Your task to perform on an android device: turn off location history Image 0: 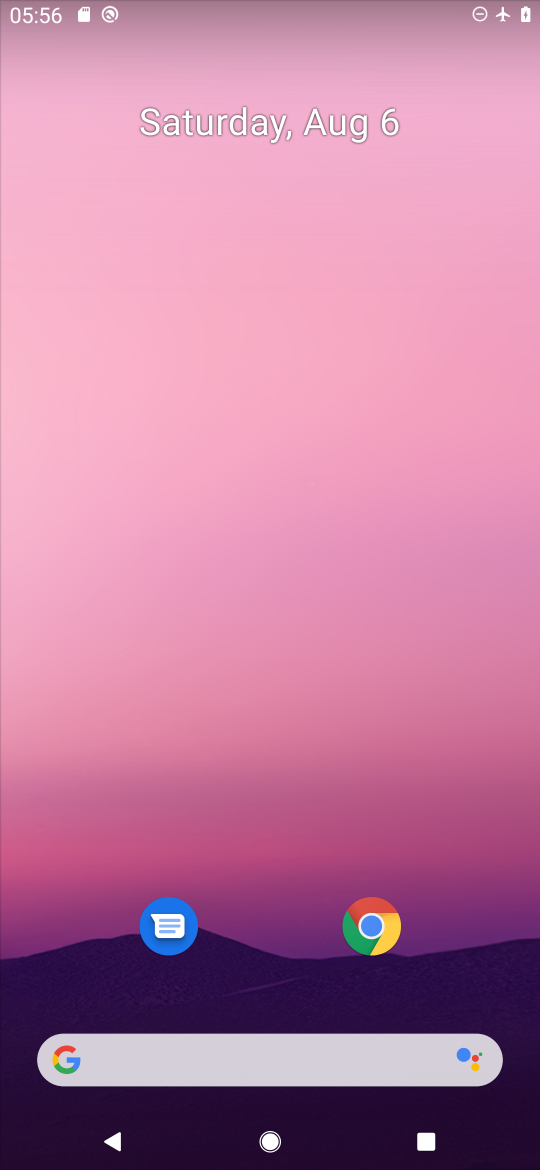
Step 0: drag from (251, 947) to (251, 164)
Your task to perform on an android device: turn off location history Image 1: 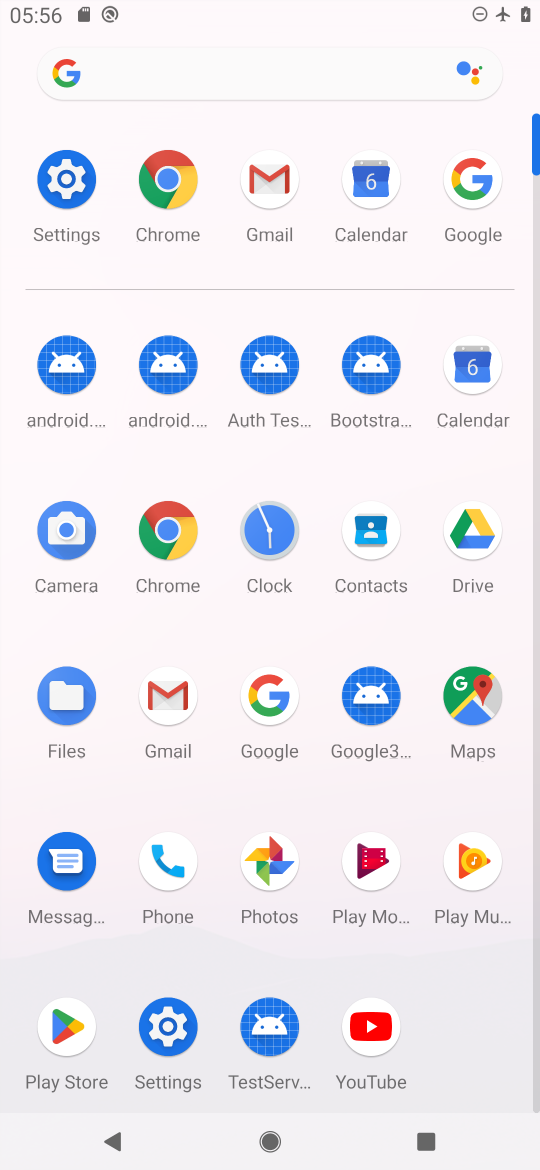
Step 1: click (81, 172)
Your task to perform on an android device: turn off location history Image 2: 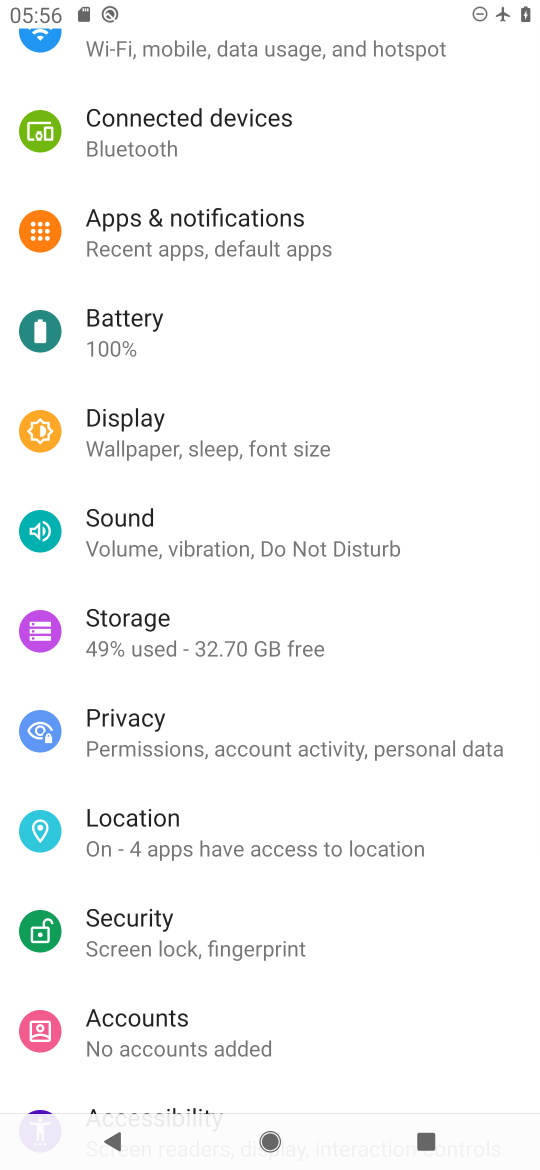
Step 2: click (148, 817)
Your task to perform on an android device: turn off location history Image 3: 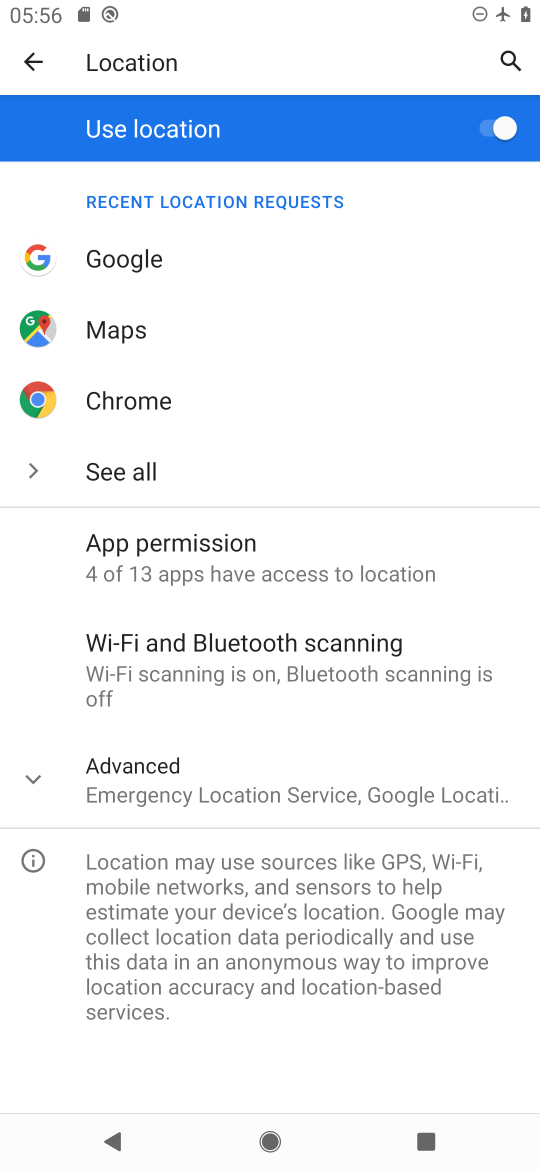
Step 3: click (185, 794)
Your task to perform on an android device: turn off location history Image 4: 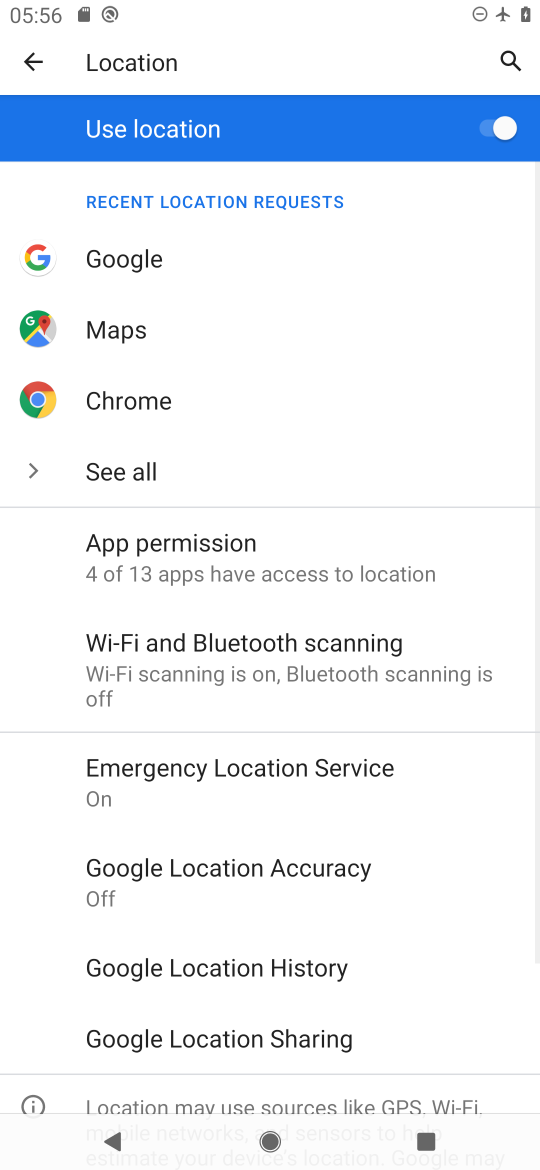
Step 4: click (385, 964)
Your task to perform on an android device: turn off location history Image 5: 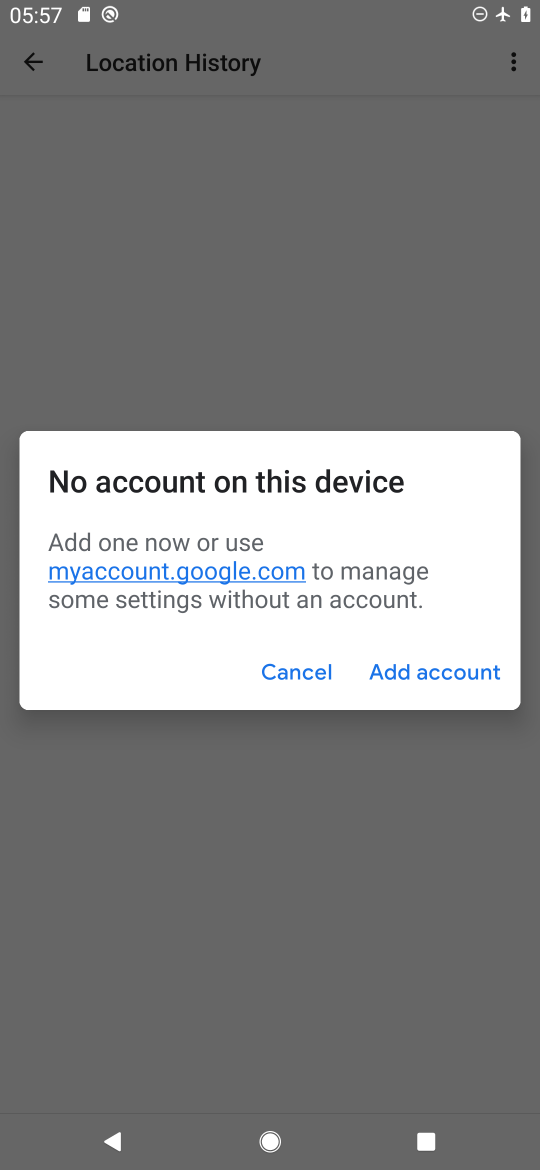
Step 5: task complete